Your task to perform on an android device: toggle location history Image 0: 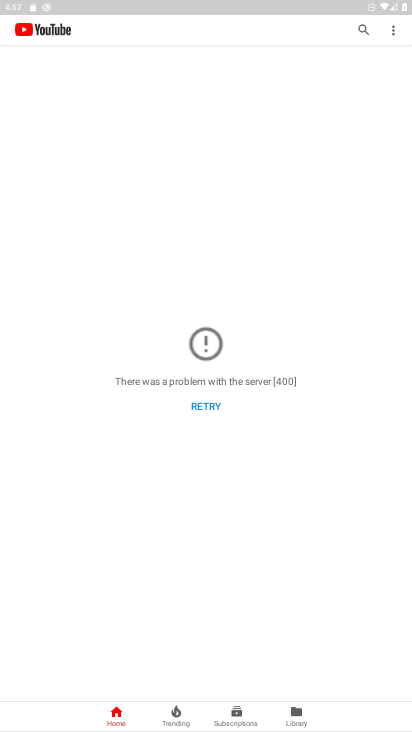
Step 0: press home button
Your task to perform on an android device: toggle location history Image 1: 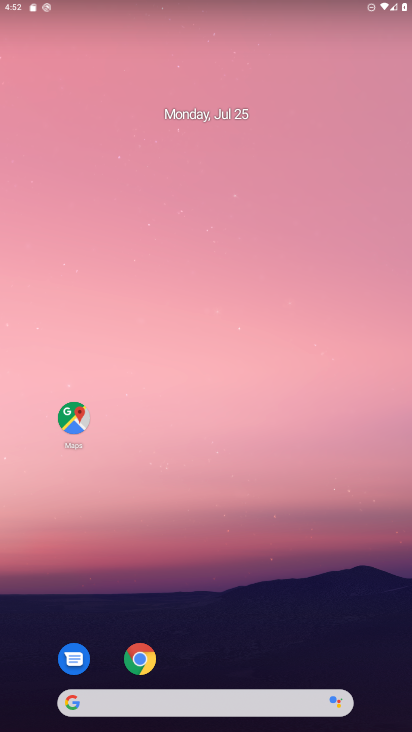
Step 1: click (202, 673)
Your task to perform on an android device: toggle location history Image 2: 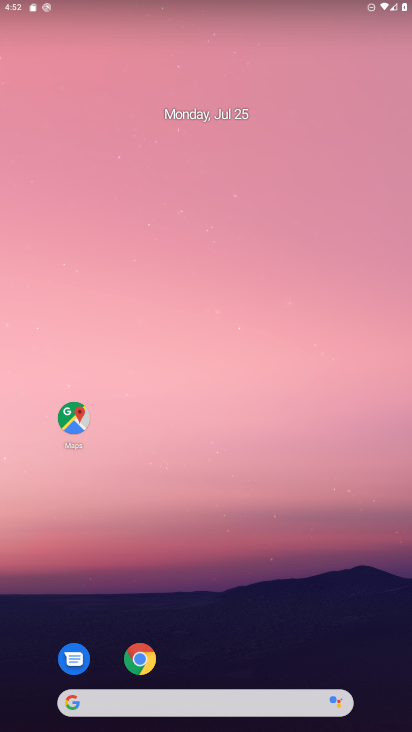
Step 2: drag from (178, 604) to (289, 105)
Your task to perform on an android device: toggle location history Image 3: 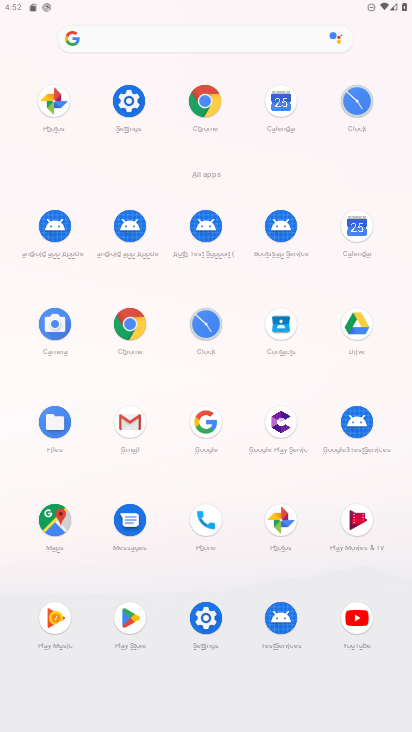
Step 3: click (206, 628)
Your task to perform on an android device: toggle location history Image 4: 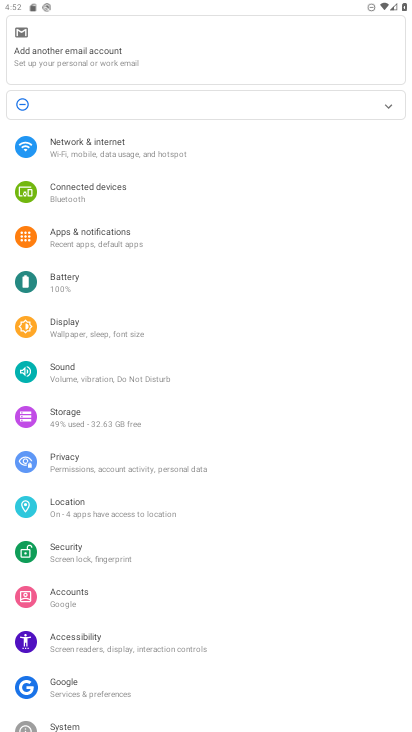
Step 4: drag from (119, 575) to (155, 58)
Your task to perform on an android device: toggle location history Image 5: 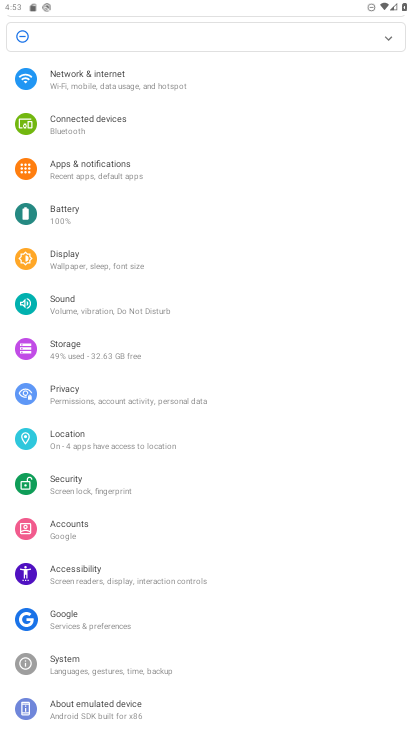
Step 5: click (64, 435)
Your task to perform on an android device: toggle location history Image 6: 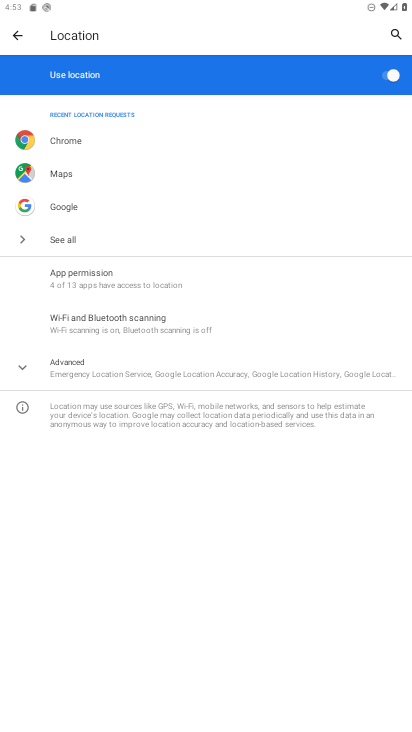
Step 6: click (59, 355)
Your task to perform on an android device: toggle location history Image 7: 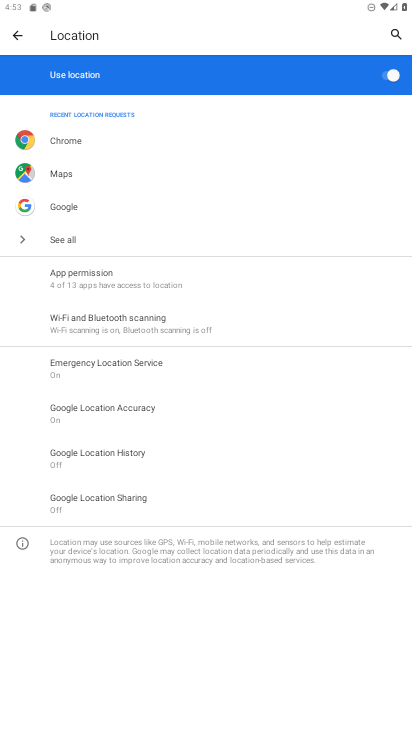
Step 7: click (87, 459)
Your task to perform on an android device: toggle location history Image 8: 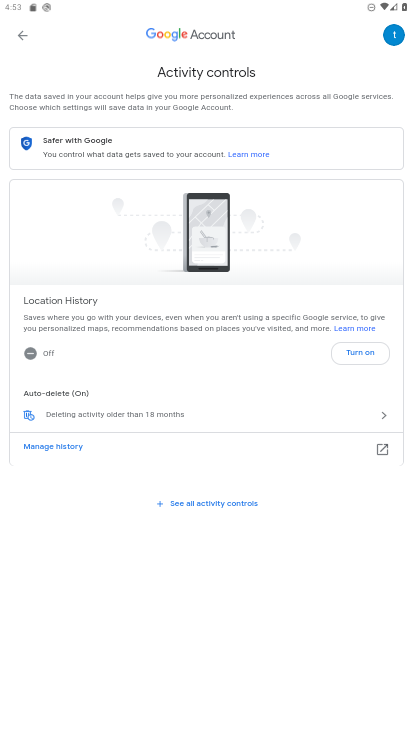
Step 8: click (354, 353)
Your task to perform on an android device: toggle location history Image 9: 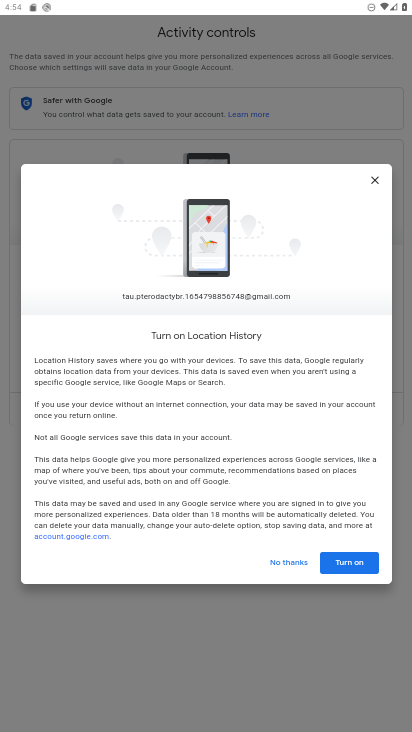
Step 9: click (339, 562)
Your task to perform on an android device: toggle location history Image 10: 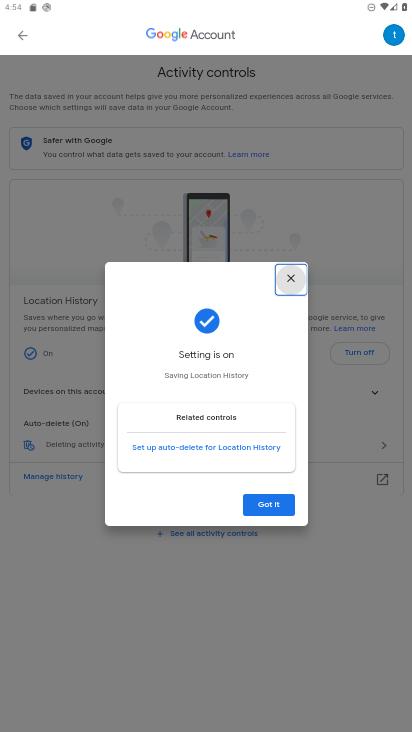
Step 10: click (274, 501)
Your task to perform on an android device: toggle location history Image 11: 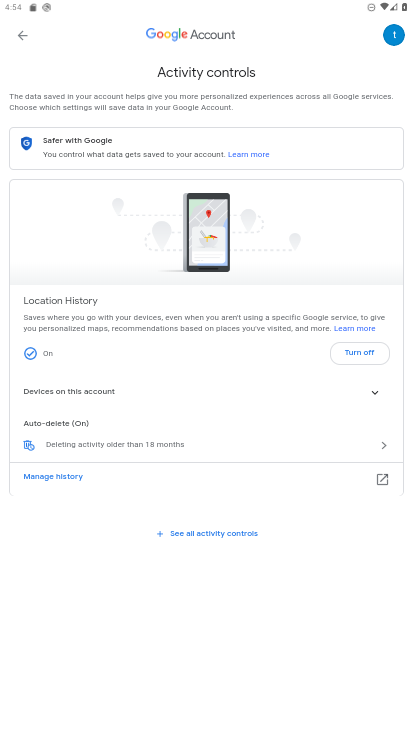
Step 11: task complete